Your task to perform on an android device: Show the shopping cart on walmart. Search for jbl flip 4 on walmart, select the first entry, and add it to the cart. Image 0: 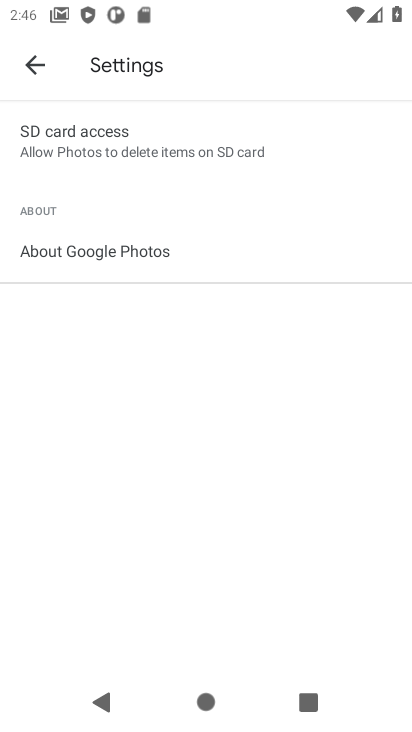
Step 0: press home button
Your task to perform on an android device: Show the shopping cart on walmart. Search for jbl flip 4 on walmart, select the first entry, and add it to the cart. Image 1: 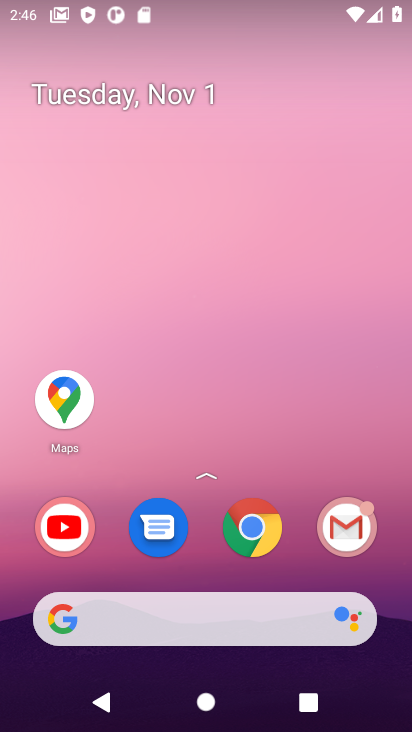
Step 1: click (224, 613)
Your task to perform on an android device: Show the shopping cart on walmart. Search for jbl flip 4 on walmart, select the first entry, and add it to the cart. Image 2: 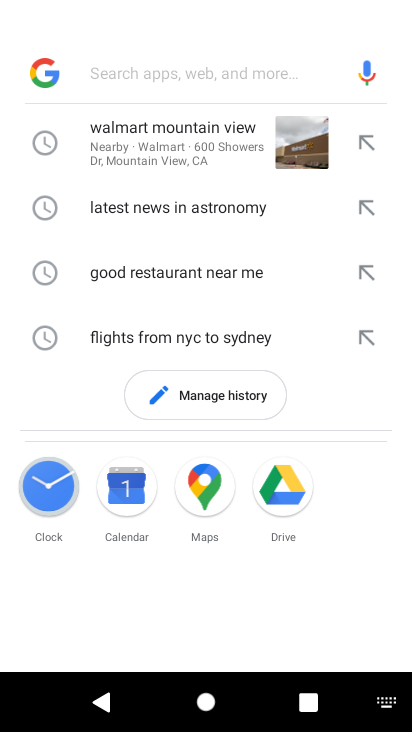
Step 2: type "walmart"
Your task to perform on an android device: Show the shopping cart on walmart. Search for jbl flip 4 on walmart, select the first entry, and add it to the cart. Image 3: 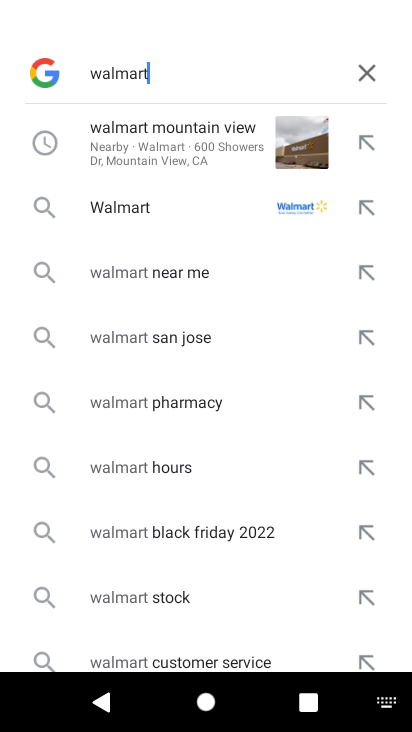
Step 3: click (229, 209)
Your task to perform on an android device: Show the shopping cart on walmart. Search for jbl flip 4 on walmart, select the first entry, and add it to the cart. Image 4: 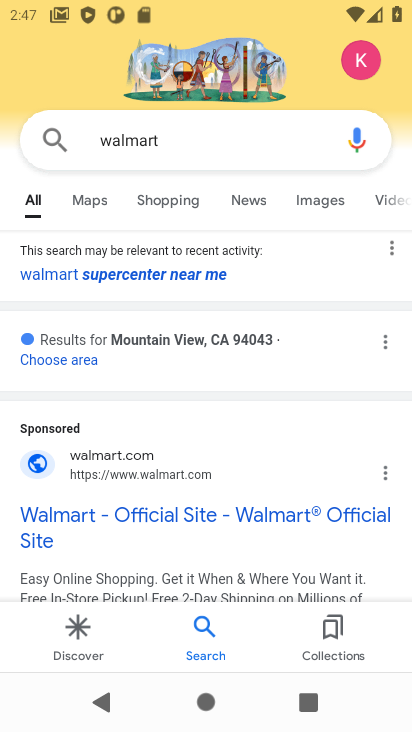
Step 4: click (145, 516)
Your task to perform on an android device: Show the shopping cart on walmart. Search for jbl flip 4 on walmart, select the first entry, and add it to the cart. Image 5: 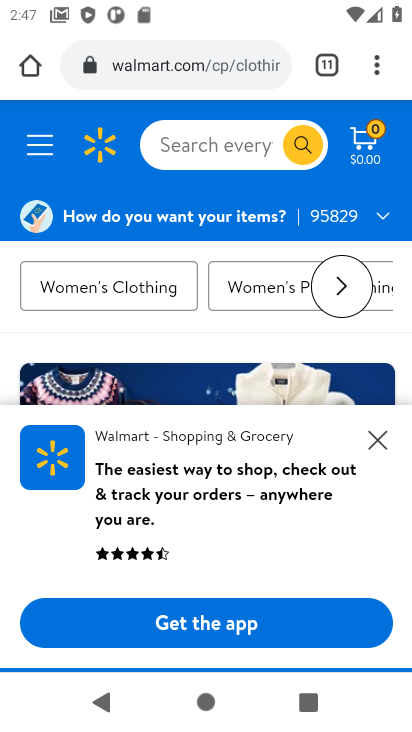
Step 5: click (327, 65)
Your task to perform on an android device: Show the shopping cart on walmart. Search for jbl flip 4 on walmart, select the first entry, and add it to the cart. Image 6: 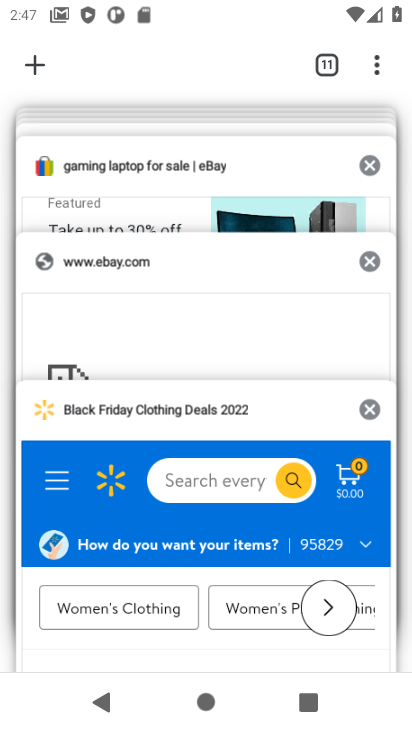
Step 6: click (371, 267)
Your task to perform on an android device: Show the shopping cart on walmart. Search for jbl flip 4 on walmart, select the first entry, and add it to the cart. Image 7: 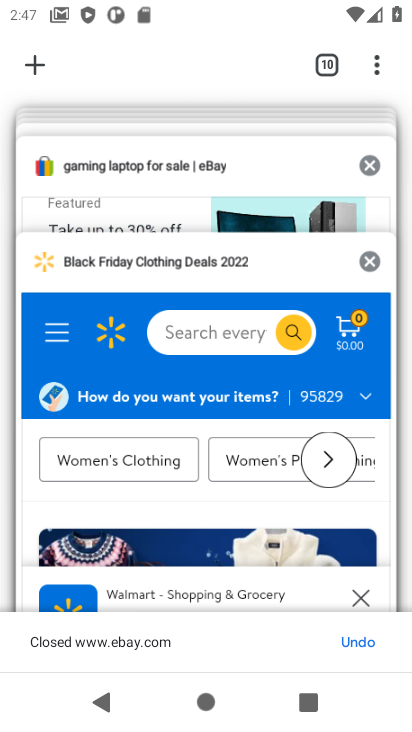
Step 7: click (371, 159)
Your task to perform on an android device: Show the shopping cart on walmart. Search for jbl flip 4 on walmart, select the first entry, and add it to the cart. Image 8: 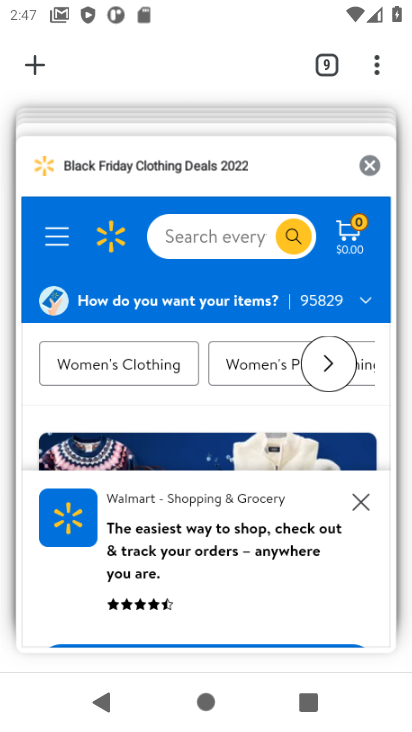
Step 8: click (372, 134)
Your task to perform on an android device: Show the shopping cart on walmart. Search for jbl flip 4 on walmart, select the first entry, and add it to the cart. Image 9: 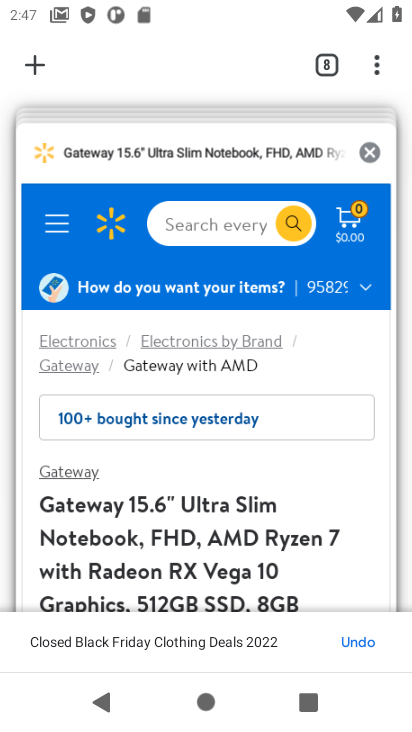
Step 9: click (367, 147)
Your task to perform on an android device: Show the shopping cart on walmart. Search for jbl flip 4 on walmart, select the first entry, and add it to the cart. Image 10: 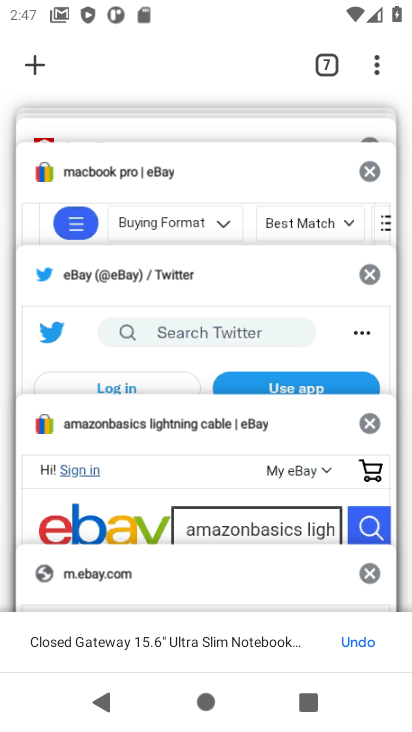
Step 10: click (367, 163)
Your task to perform on an android device: Show the shopping cart on walmart. Search for jbl flip 4 on walmart, select the first entry, and add it to the cart. Image 11: 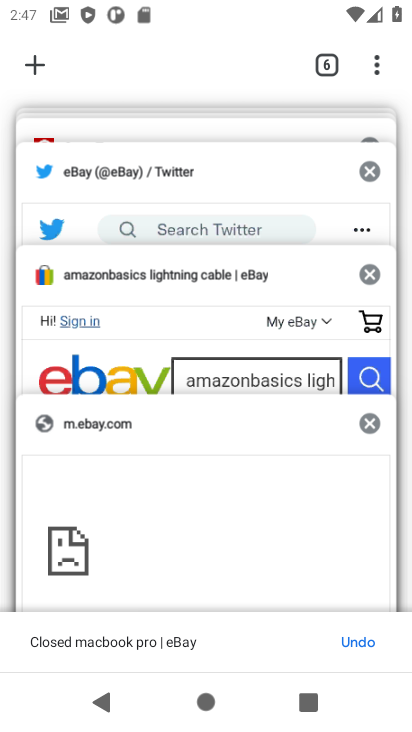
Step 11: click (367, 165)
Your task to perform on an android device: Show the shopping cart on walmart. Search for jbl flip 4 on walmart, select the first entry, and add it to the cart. Image 12: 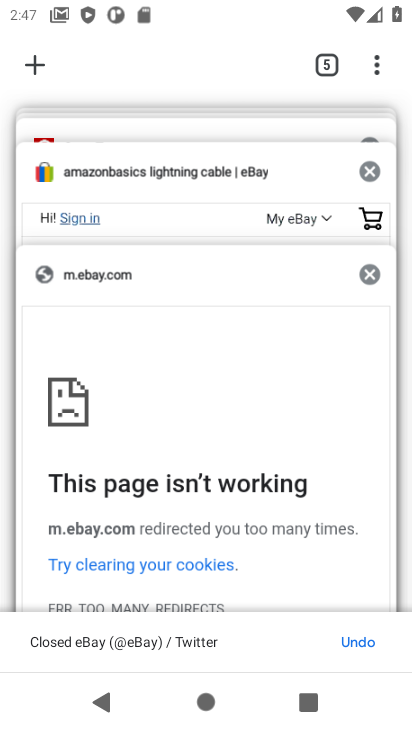
Step 12: click (367, 165)
Your task to perform on an android device: Show the shopping cart on walmart. Search for jbl flip 4 on walmart, select the first entry, and add it to the cart. Image 13: 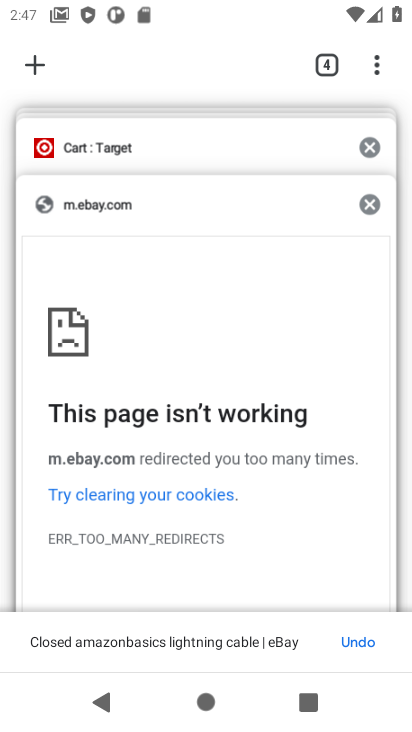
Step 13: click (367, 202)
Your task to perform on an android device: Show the shopping cart on walmart. Search for jbl flip 4 on walmart, select the first entry, and add it to the cart. Image 14: 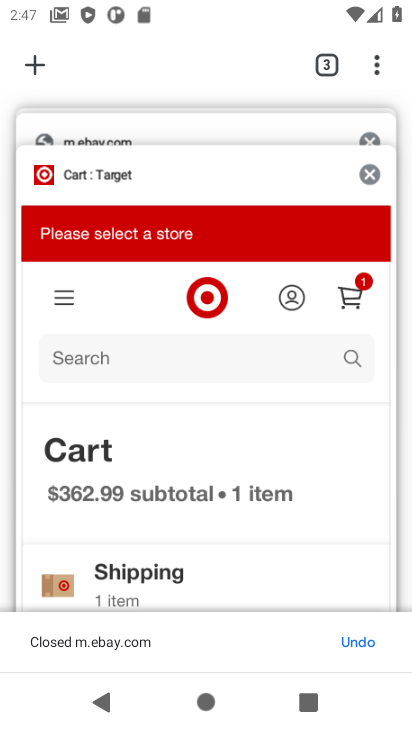
Step 14: click (367, 179)
Your task to perform on an android device: Show the shopping cart on walmart. Search for jbl flip 4 on walmart, select the first entry, and add it to the cart. Image 15: 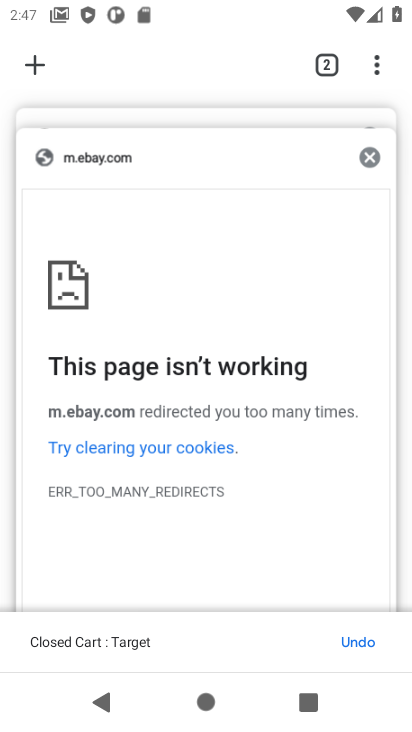
Step 15: click (367, 159)
Your task to perform on an android device: Show the shopping cart on walmart. Search for jbl flip 4 on walmart, select the first entry, and add it to the cart. Image 16: 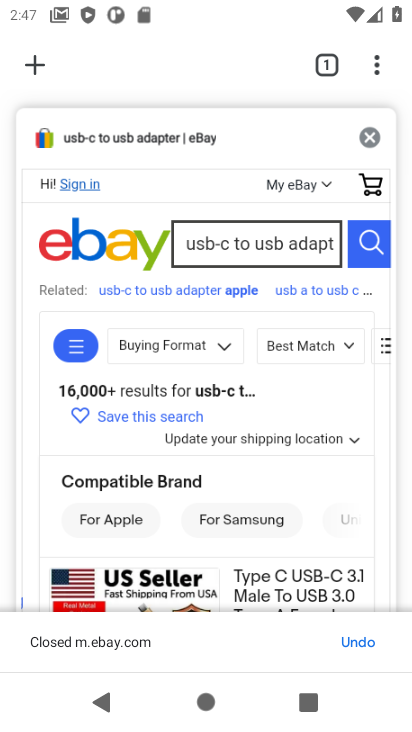
Step 16: click (370, 132)
Your task to perform on an android device: Show the shopping cart on walmart. Search for jbl flip 4 on walmart, select the first entry, and add it to the cart. Image 17: 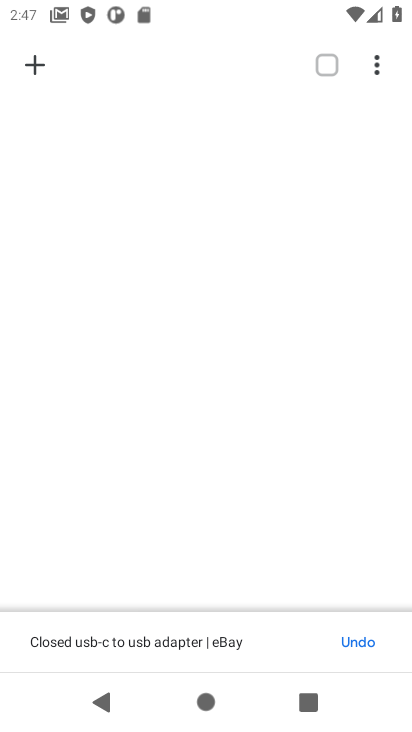
Step 17: click (30, 66)
Your task to perform on an android device: Show the shopping cart on walmart. Search for jbl flip 4 on walmart, select the first entry, and add it to the cart. Image 18: 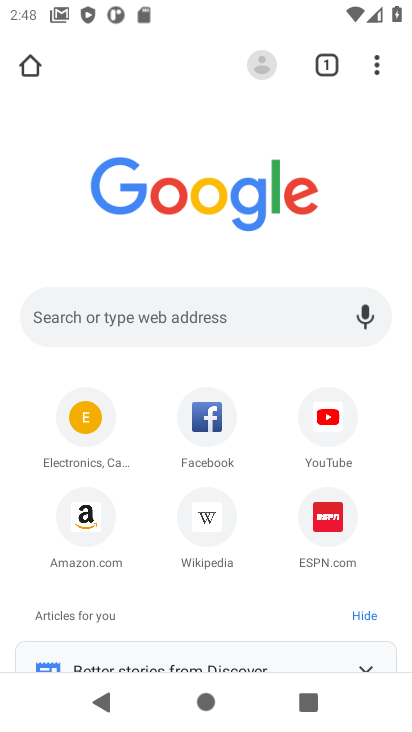
Step 18: click (166, 315)
Your task to perform on an android device: Show the shopping cart on walmart. Search for jbl flip 4 on walmart, select the first entry, and add it to the cart. Image 19: 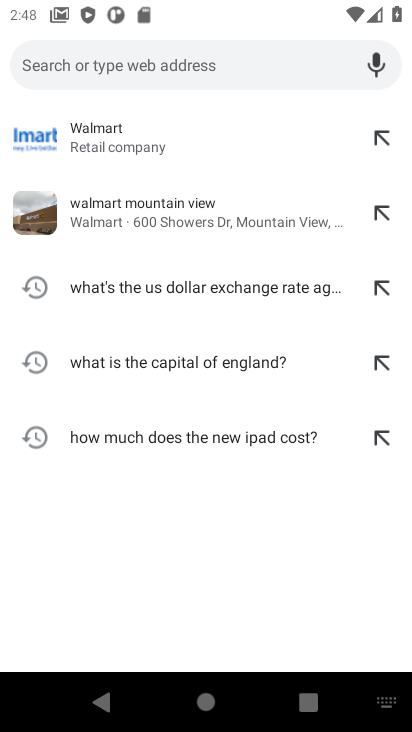
Step 19: click (135, 138)
Your task to perform on an android device: Show the shopping cart on walmart. Search for jbl flip 4 on walmart, select the first entry, and add it to the cart. Image 20: 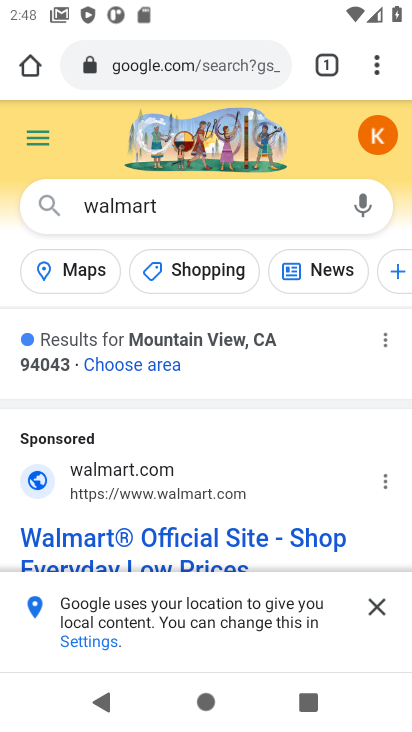
Step 20: click (374, 598)
Your task to perform on an android device: Show the shopping cart on walmart. Search for jbl flip 4 on walmart, select the first entry, and add it to the cart. Image 21: 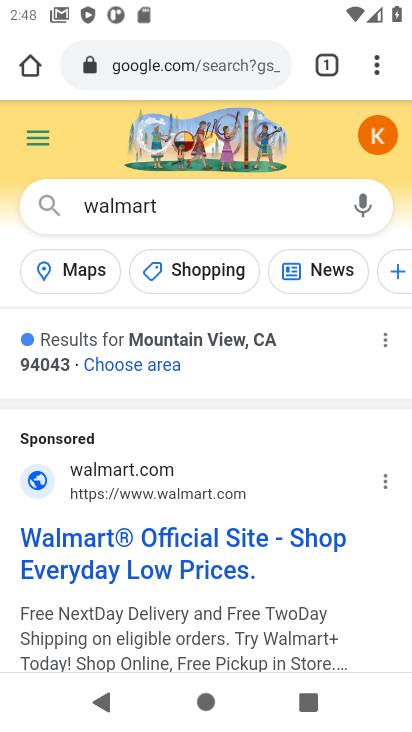
Step 21: click (210, 535)
Your task to perform on an android device: Show the shopping cart on walmart. Search for jbl flip 4 on walmart, select the first entry, and add it to the cart. Image 22: 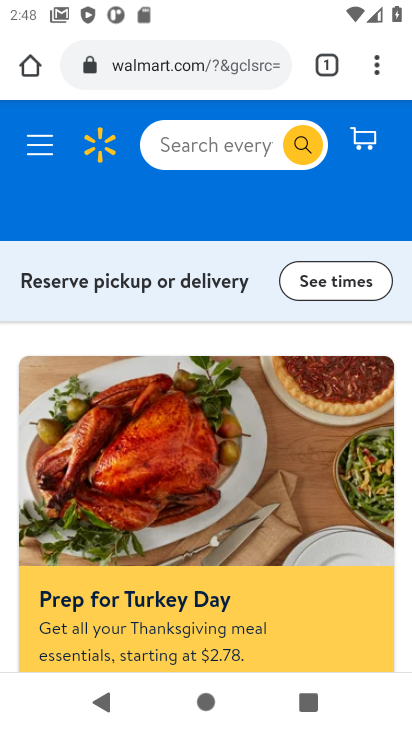
Step 22: click (220, 132)
Your task to perform on an android device: Show the shopping cart on walmart. Search for jbl flip 4 on walmart, select the first entry, and add it to the cart. Image 23: 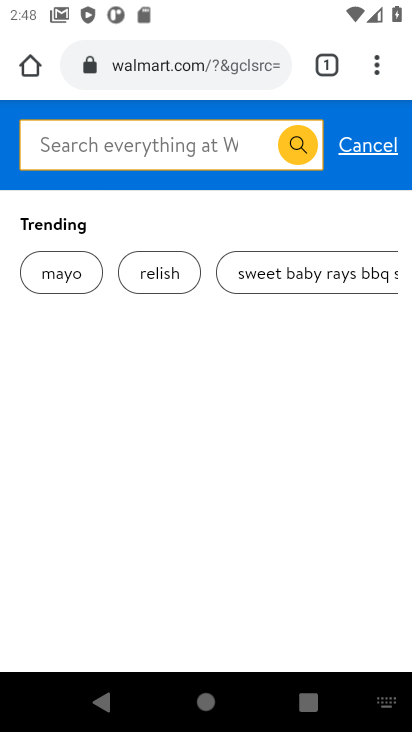
Step 23: type "walmart"
Your task to perform on an android device: Show the shopping cart on walmart. Search for jbl flip 4 on walmart, select the first entry, and add it to the cart. Image 24: 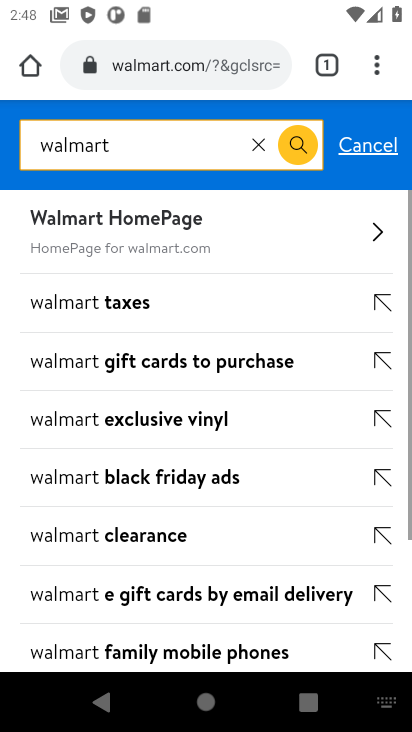
Step 24: click (157, 237)
Your task to perform on an android device: Show the shopping cart on walmart. Search for jbl flip 4 on walmart, select the first entry, and add it to the cart. Image 25: 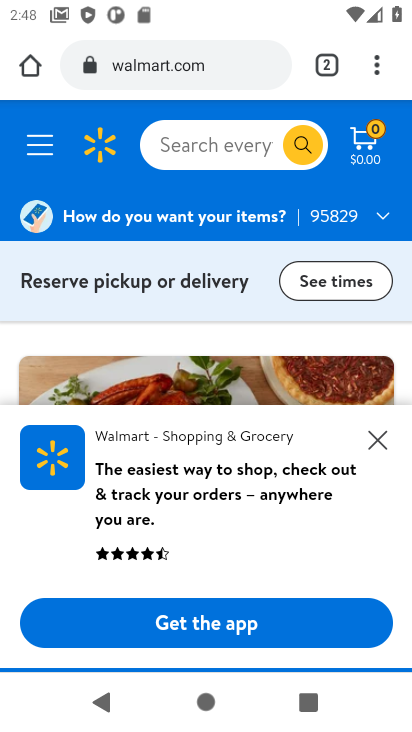
Step 25: click (373, 436)
Your task to perform on an android device: Show the shopping cart on walmart. Search for jbl flip 4 on walmart, select the first entry, and add it to the cart. Image 26: 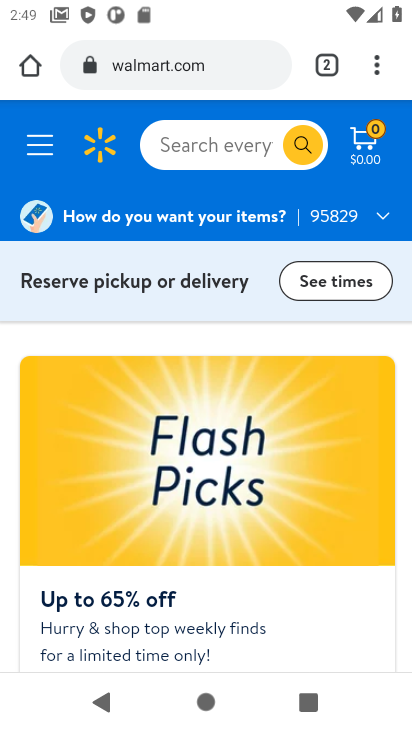
Step 26: click (195, 143)
Your task to perform on an android device: Show the shopping cart on walmart. Search for jbl flip 4 on walmart, select the first entry, and add it to the cart. Image 27: 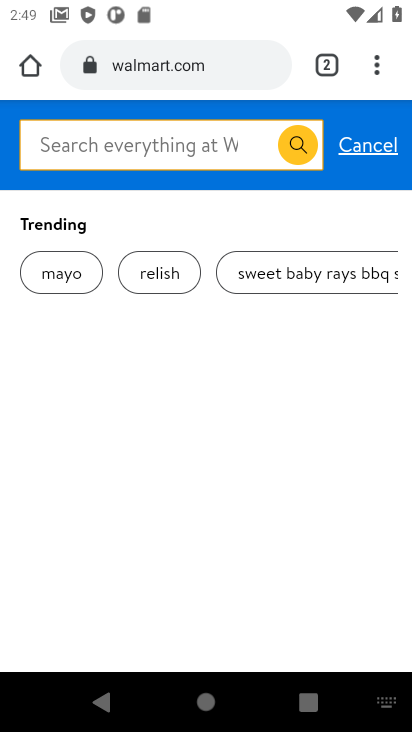
Step 27: type "jbl flip 4 "
Your task to perform on an android device: Show the shopping cart on walmart. Search for jbl flip 4 on walmart, select the first entry, and add it to the cart. Image 28: 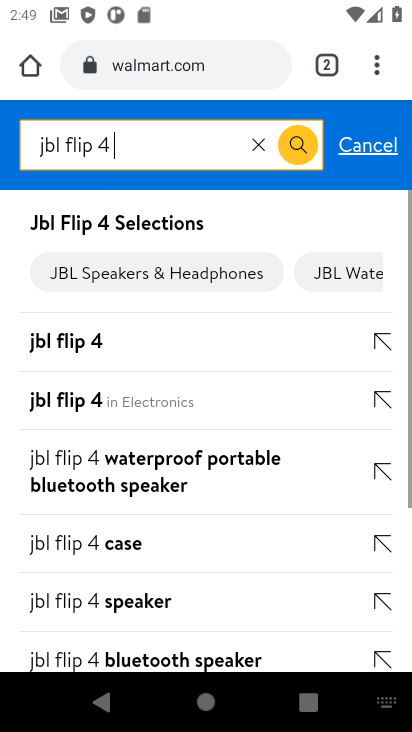
Step 28: click (109, 225)
Your task to perform on an android device: Show the shopping cart on walmart. Search for jbl flip 4 on walmart, select the first entry, and add it to the cart. Image 29: 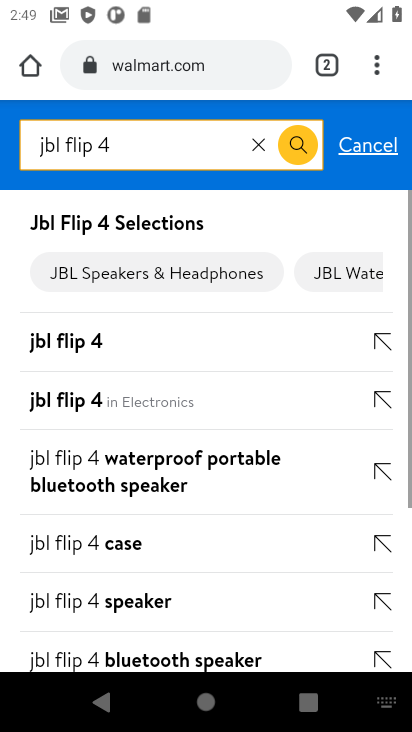
Step 29: click (109, 225)
Your task to perform on an android device: Show the shopping cart on walmart. Search for jbl flip 4 on walmart, select the first entry, and add it to the cart. Image 30: 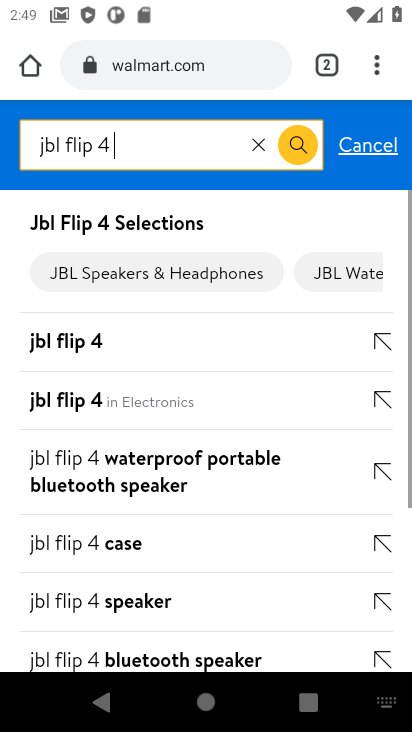
Step 30: click (137, 219)
Your task to perform on an android device: Show the shopping cart on walmart. Search for jbl flip 4 on walmart, select the first entry, and add it to the cart. Image 31: 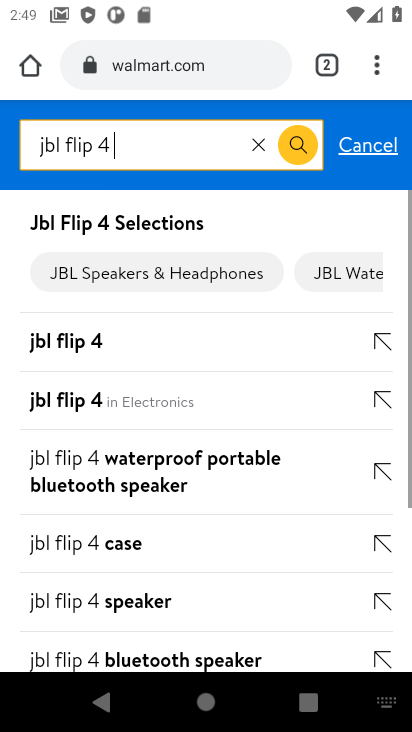
Step 31: click (137, 219)
Your task to perform on an android device: Show the shopping cart on walmart. Search for jbl flip 4 on walmart, select the first entry, and add it to the cart. Image 32: 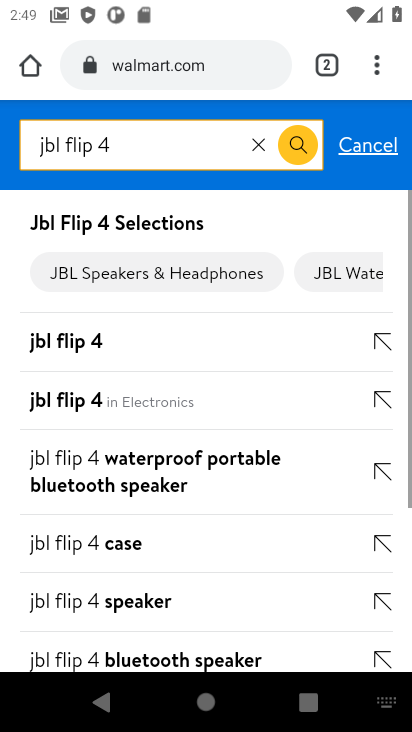
Step 32: click (137, 219)
Your task to perform on an android device: Show the shopping cart on walmart. Search for jbl flip 4 on walmart, select the first entry, and add it to the cart. Image 33: 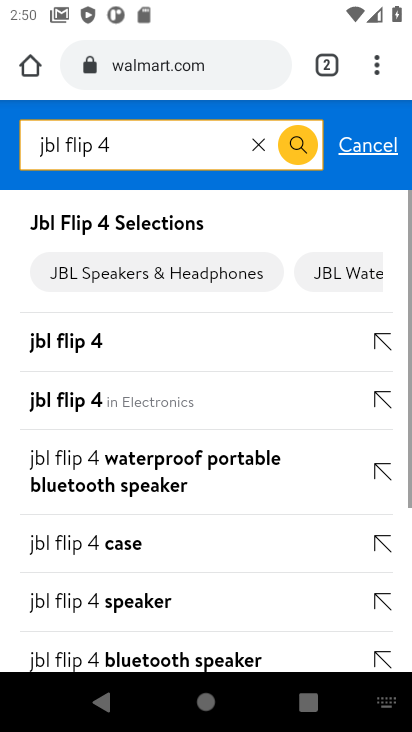
Step 33: click (95, 323)
Your task to perform on an android device: Show the shopping cart on walmart. Search for jbl flip 4 on walmart, select the first entry, and add it to the cart. Image 34: 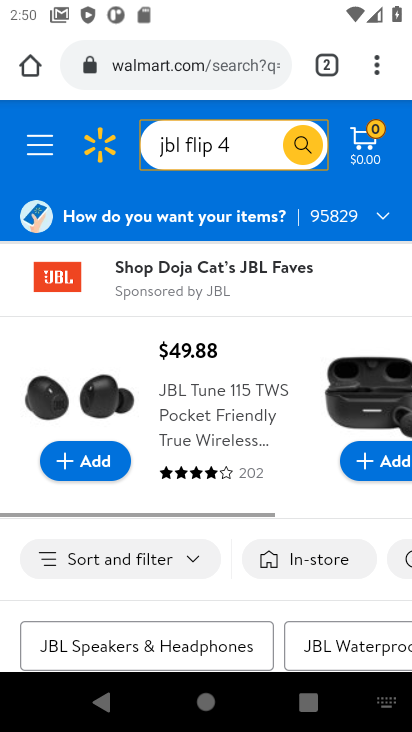
Step 34: drag from (168, 442) to (153, 175)
Your task to perform on an android device: Show the shopping cart on walmart. Search for jbl flip 4 on walmart, select the first entry, and add it to the cart. Image 35: 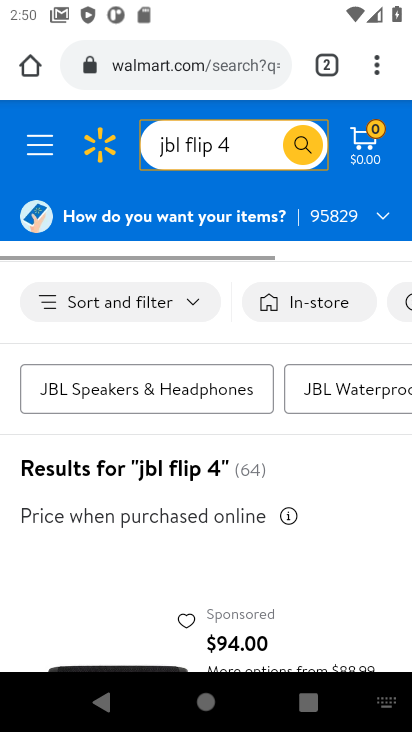
Step 35: drag from (264, 558) to (230, 322)
Your task to perform on an android device: Show the shopping cart on walmart. Search for jbl flip 4 on walmart, select the first entry, and add it to the cart. Image 36: 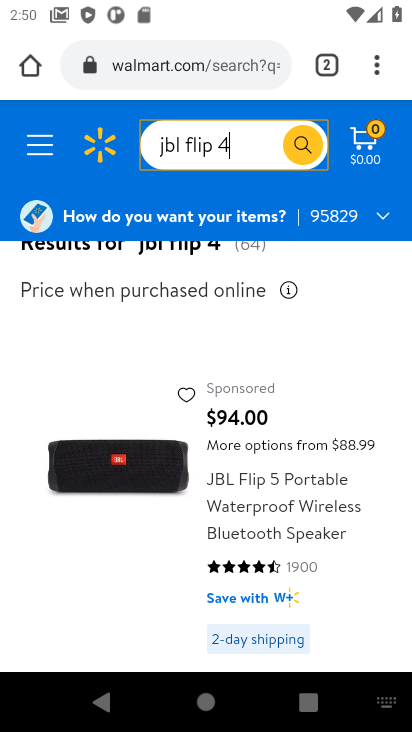
Step 36: drag from (264, 518) to (246, 267)
Your task to perform on an android device: Show the shopping cart on walmart. Search for jbl flip 4 on walmart, select the first entry, and add it to the cart. Image 37: 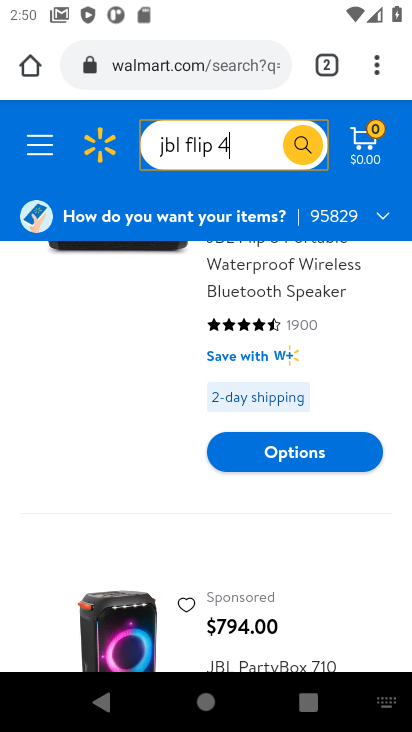
Step 37: click (274, 452)
Your task to perform on an android device: Show the shopping cart on walmart. Search for jbl flip 4 on walmart, select the first entry, and add it to the cart. Image 38: 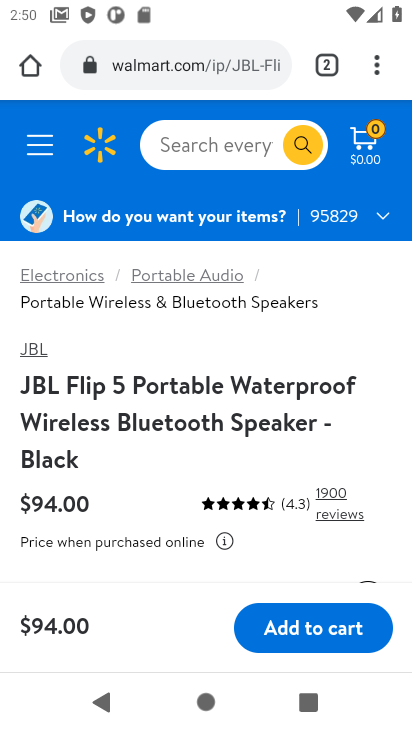
Step 38: click (289, 629)
Your task to perform on an android device: Show the shopping cart on walmart. Search for jbl flip 4 on walmart, select the first entry, and add it to the cart. Image 39: 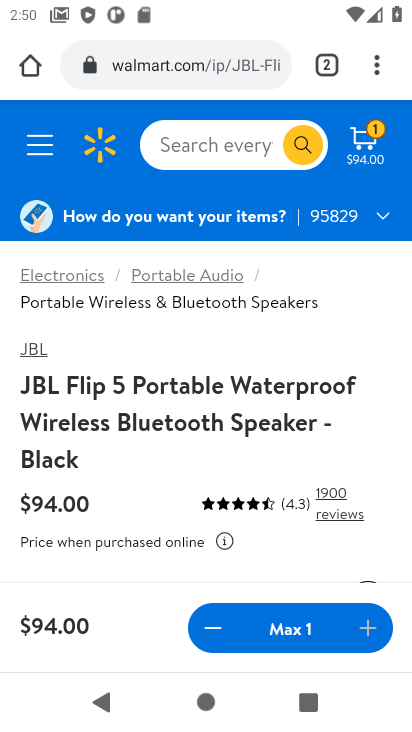
Step 39: task complete